Your task to perform on an android device: uninstall "Yahoo Mail" Image 0: 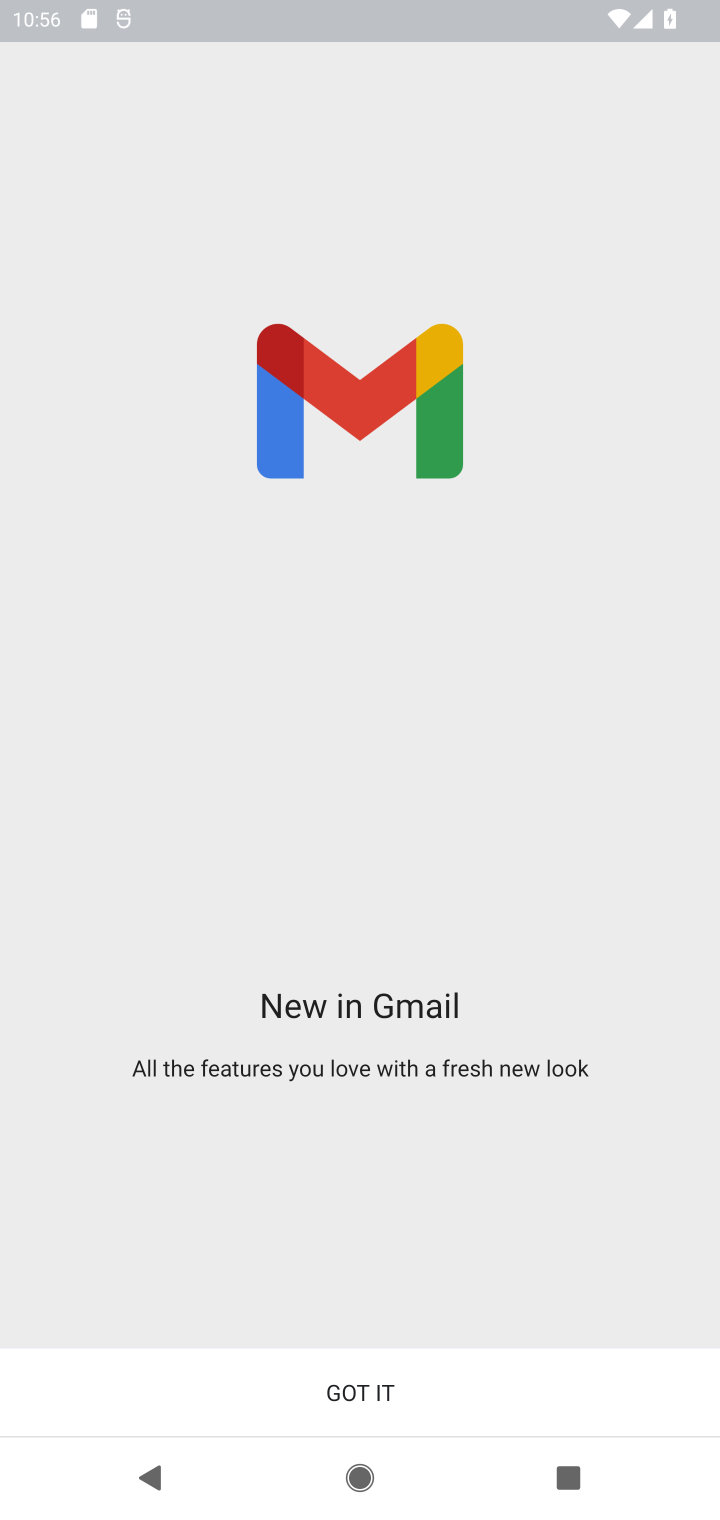
Step 0: press home button
Your task to perform on an android device: uninstall "Yahoo Mail" Image 1: 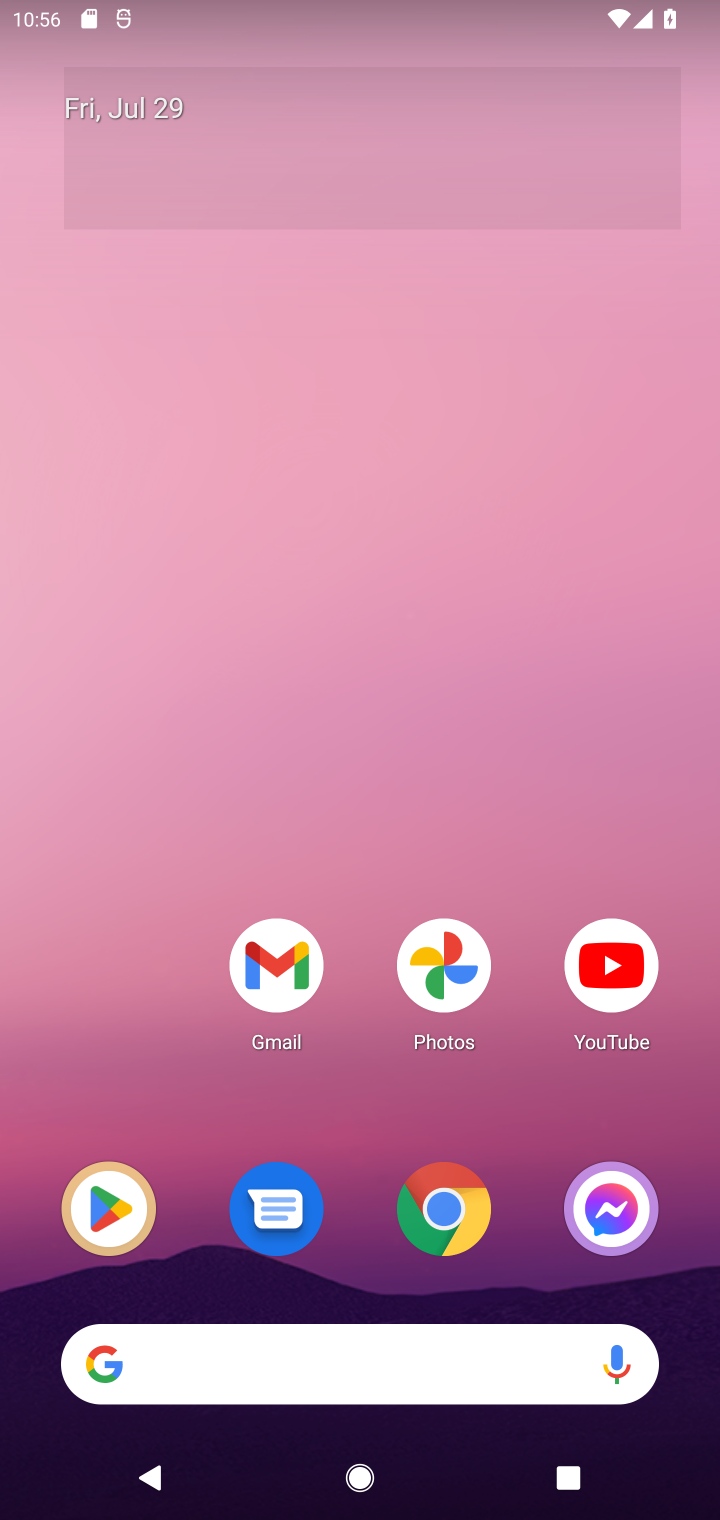
Step 1: drag from (548, 843) to (595, 232)
Your task to perform on an android device: uninstall "Yahoo Mail" Image 2: 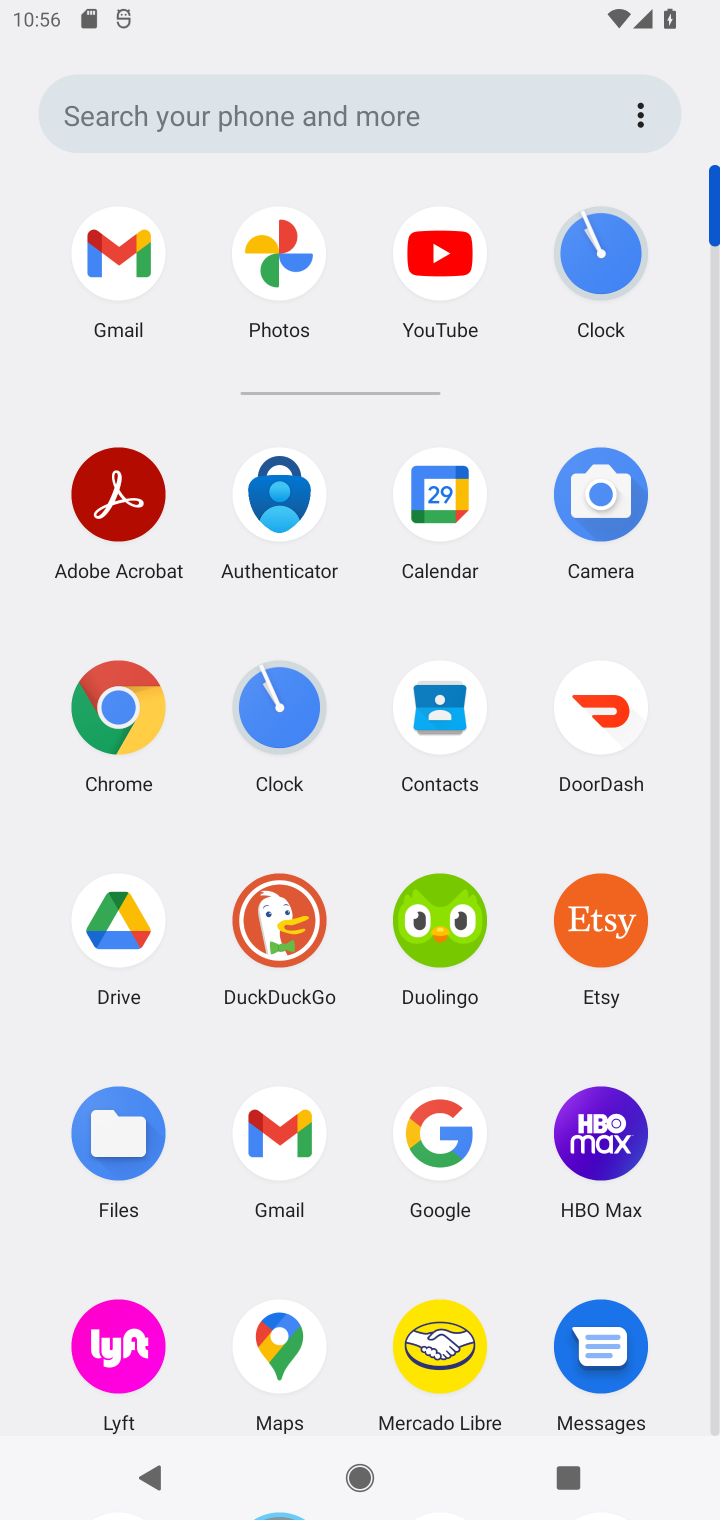
Step 2: drag from (354, 1232) to (422, 494)
Your task to perform on an android device: uninstall "Yahoo Mail" Image 3: 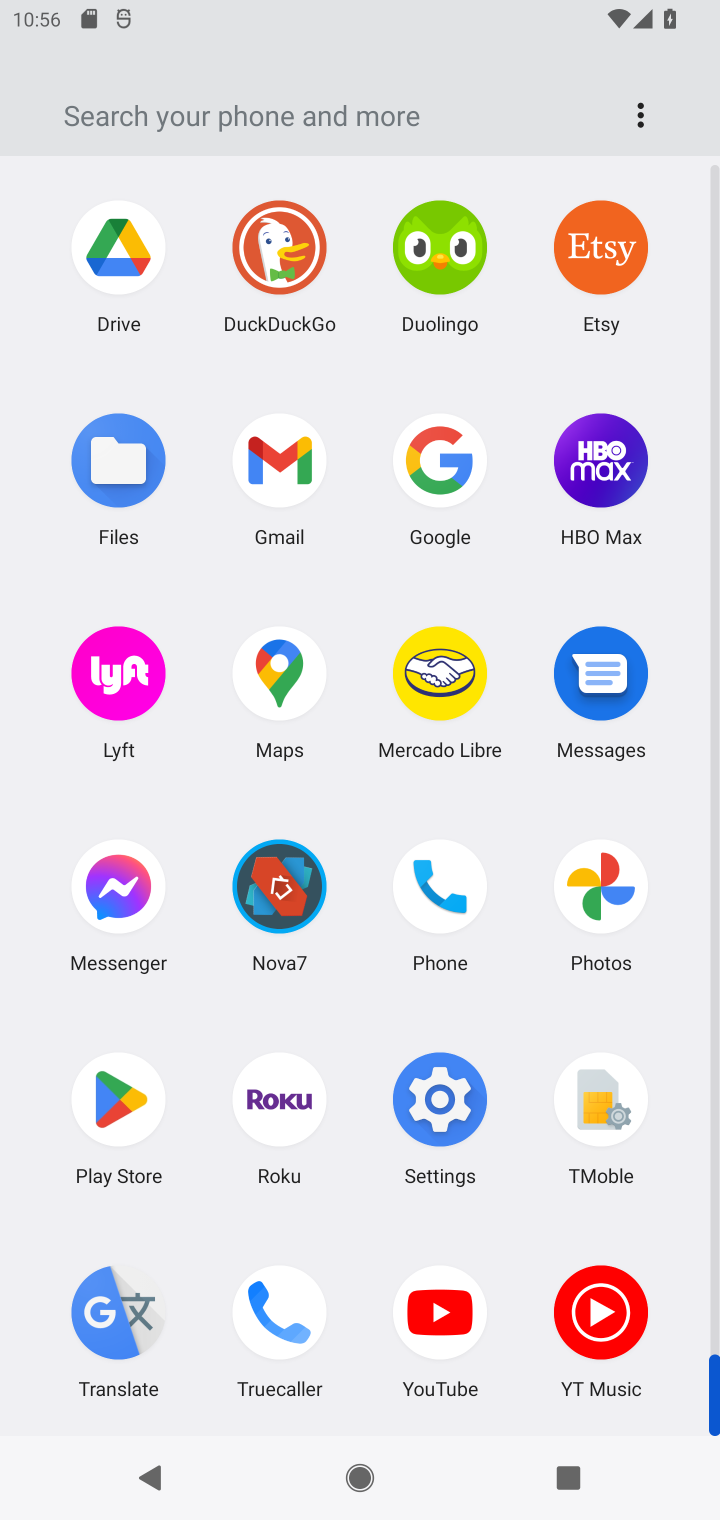
Step 3: click (149, 1092)
Your task to perform on an android device: uninstall "Yahoo Mail" Image 4: 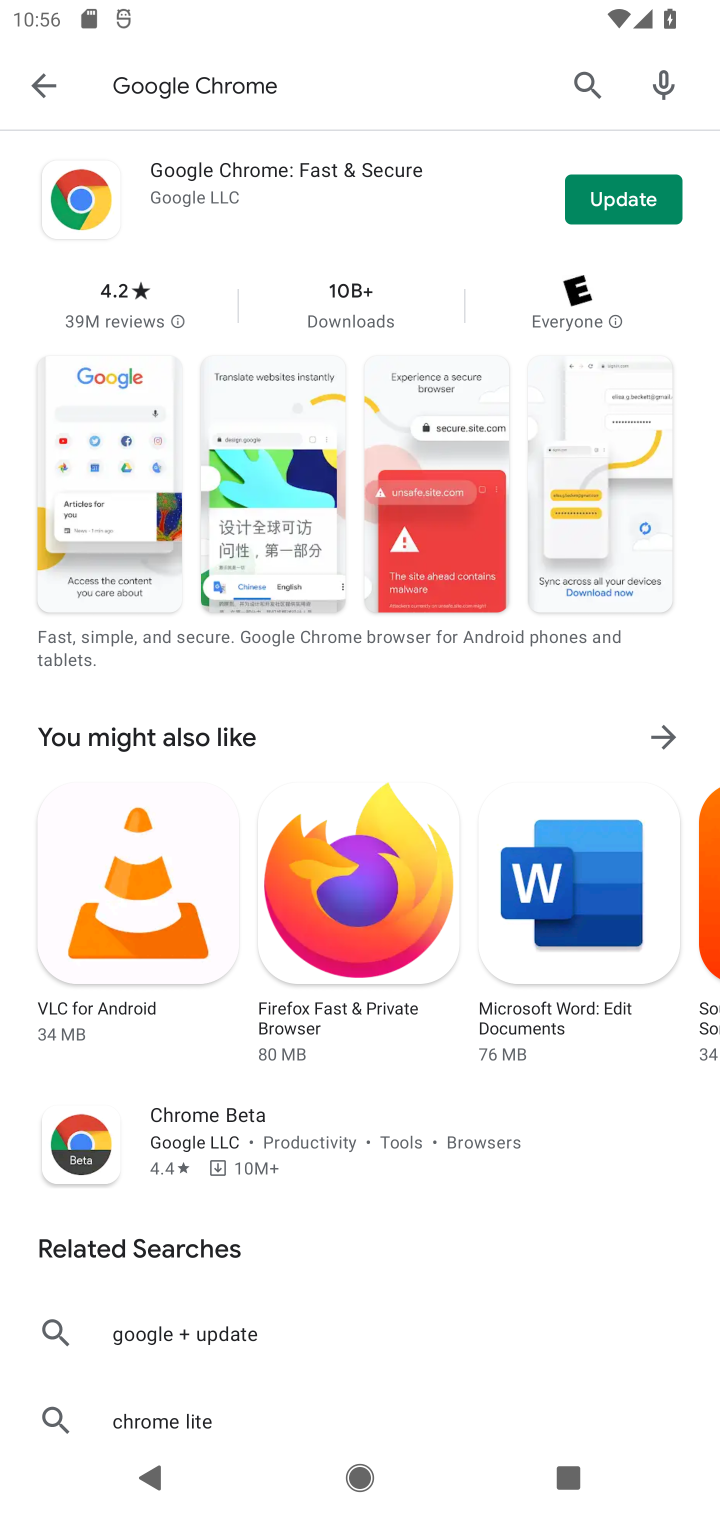
Step 4: click (334, 82)
Your task to perform on an android device: uninstall "Yahoo Mail" Image 5: 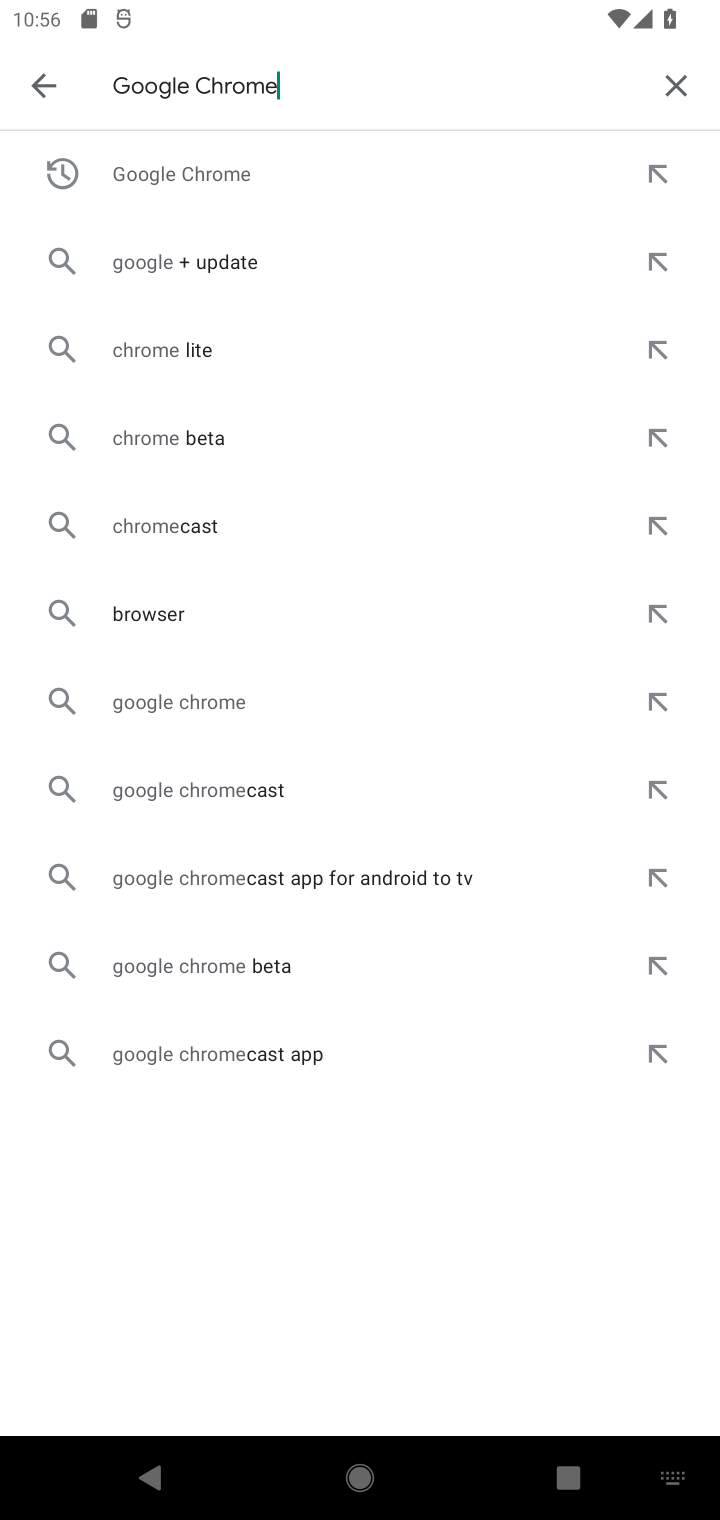
Step 5: click (683, 74)
Your task to perform on an android device: uninstall "Yahoo Mail" Image 6: 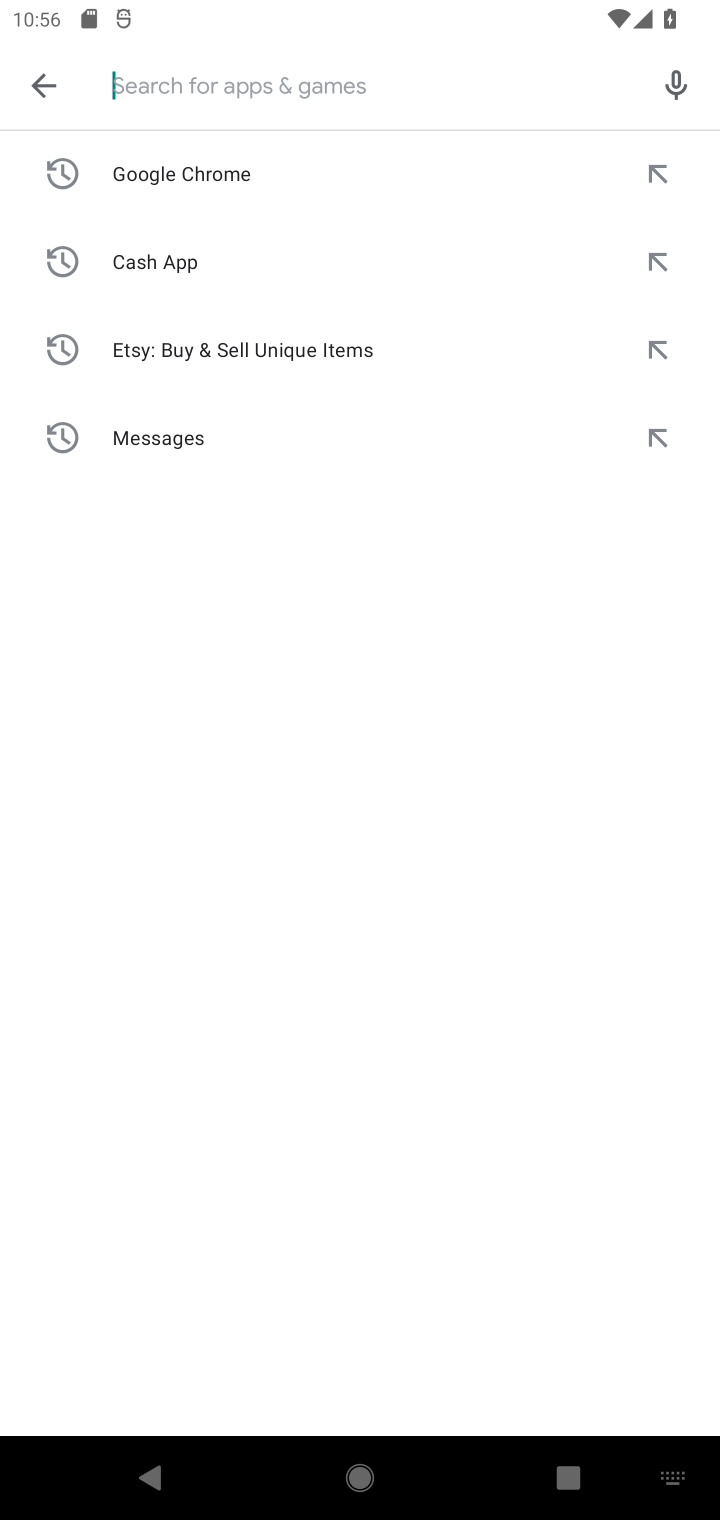
Step 6: type "Yahoo Mail"
Your task to perform on an android device: uninstall "Yahoo Mail" Image 7: 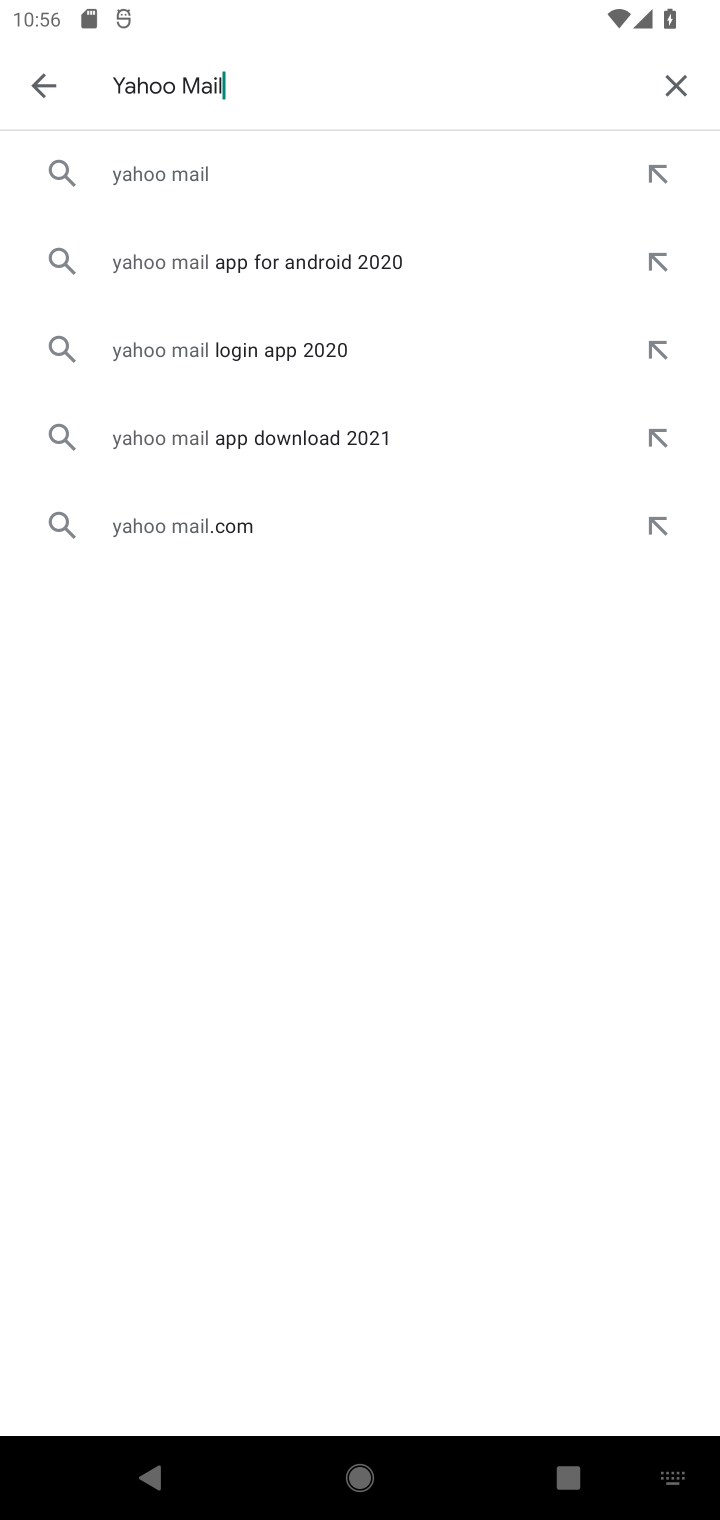
Step 7: press enter
Your task to perform on an android device: uninstall "Yahoo Mail" Image 8: 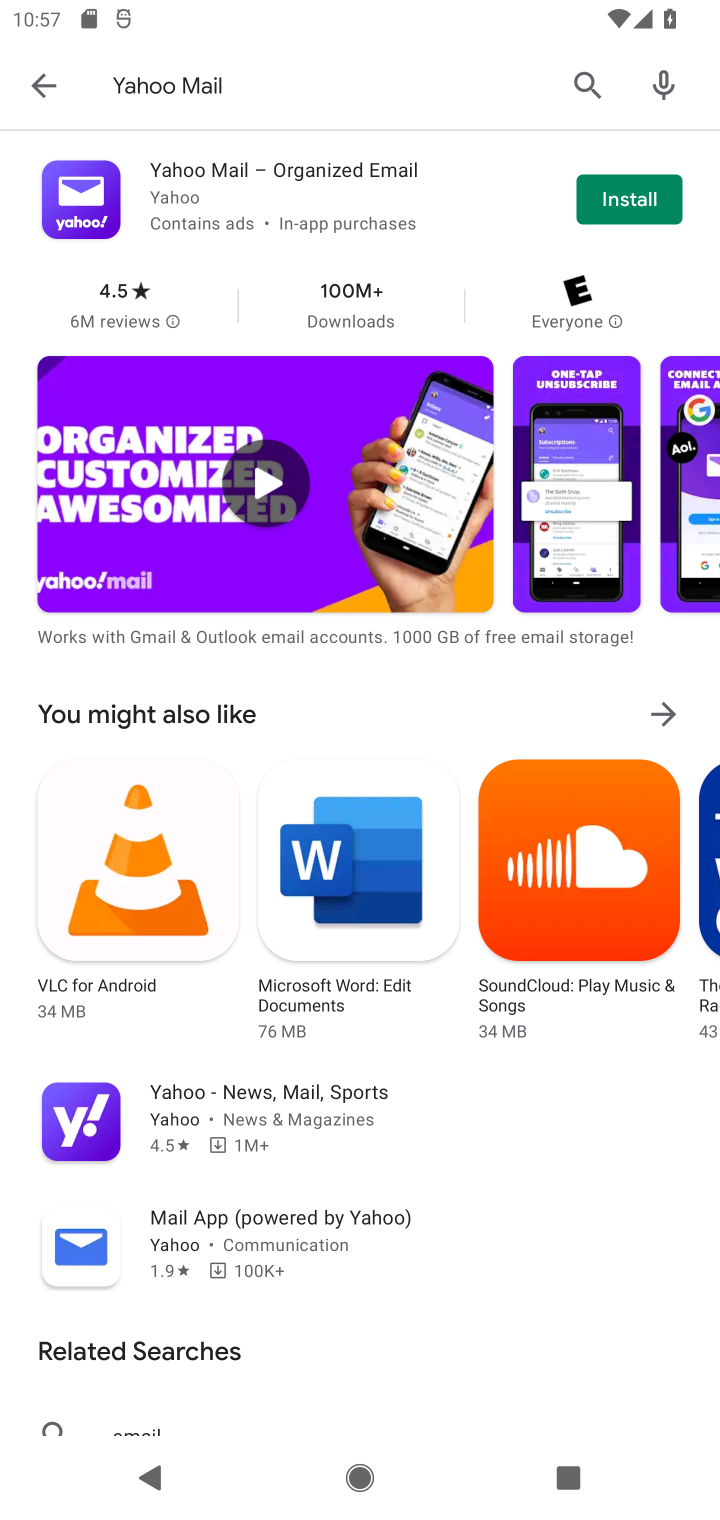
Step 8: task complete